Your task to perform on an android device: check storage Image 0: 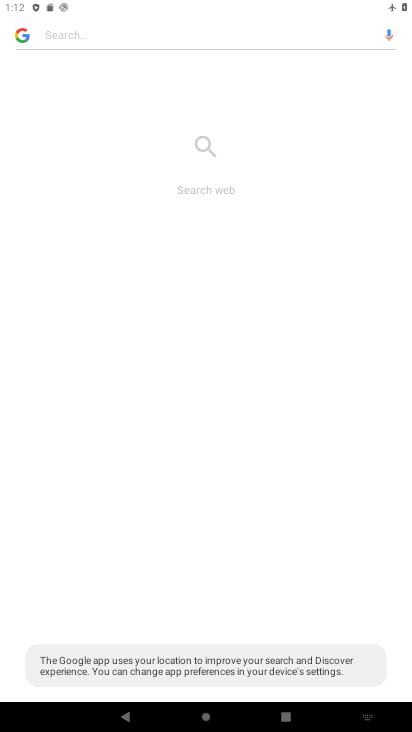
Step 0: press home button
Your task to perform on an android device: check storage Image 1: 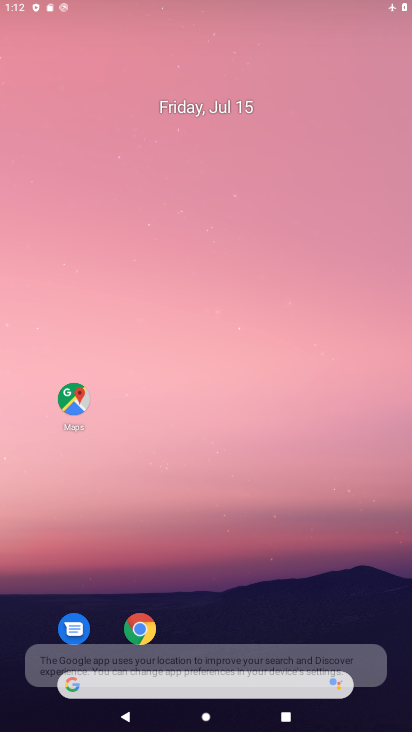
Step 1: drag from (300, 563) to (287, 7)
Your task to perform on an android device: check storage Image 2: 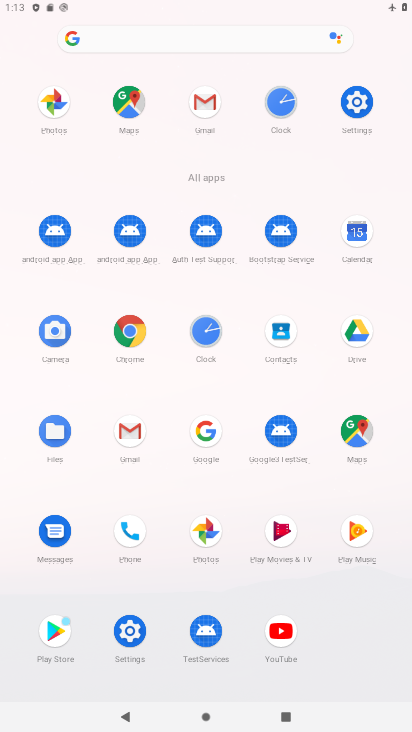
Step 2: click (121, 634)
Your task to perform on an android device: check storage Image 3: 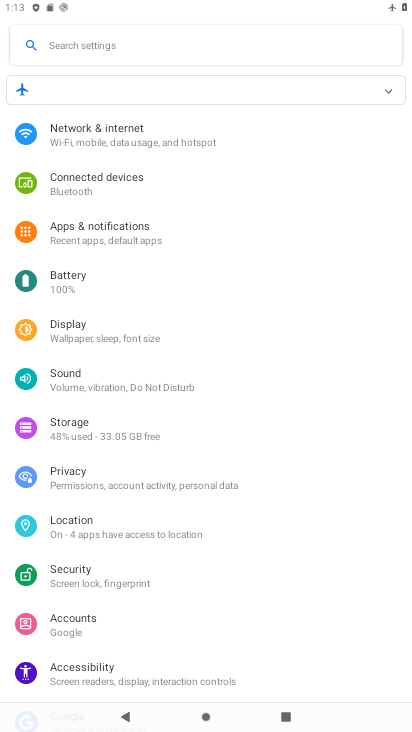
Step 3: click (53, 431)
Your task to perform on an android device: check storage Image 4: 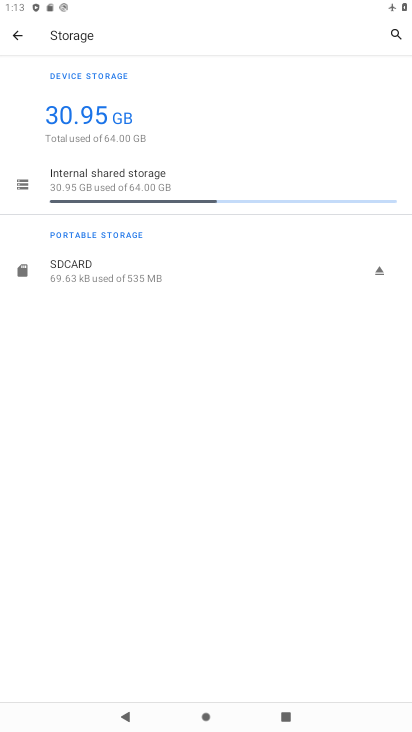
Step 4: task complete